Your task to perform on an android device: toggle notifications settings in the gmail app Image 0: 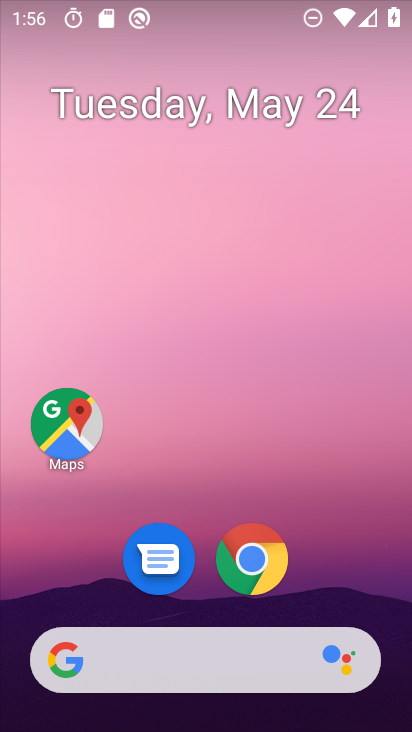
Step 0: drag from (389, 584) to (364, 225)
Your task to perform on an android device: toggle notifications settings in the gmail app Image 1: 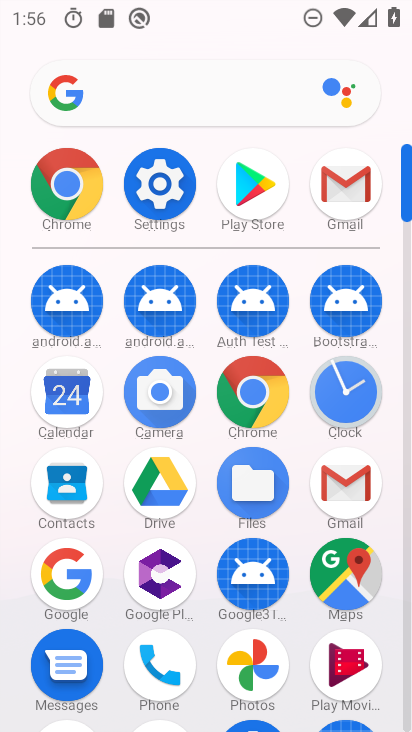
Step 1: click (341, 189)
Your task to perform on an android device: toggle notifications settings in the gmail app Image 2: 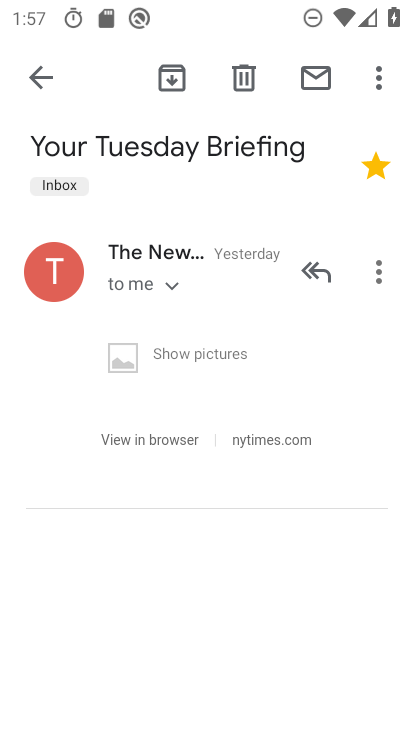
Step 2: click (37, 77)
Your task to perform on an android device: toggle notifications settings in the gmail app Image 3: 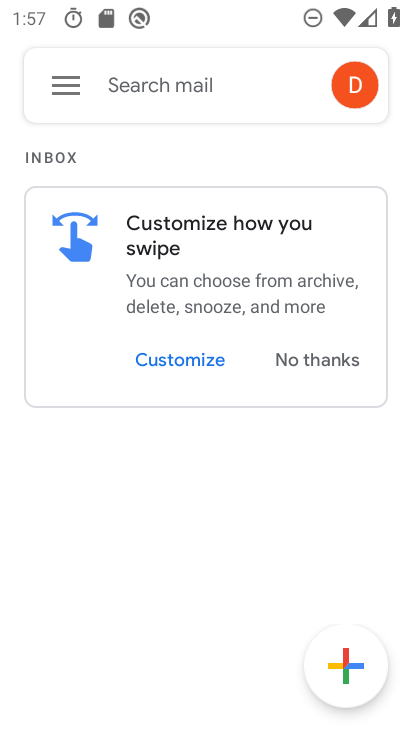
Step 3: click (41, 81)
Your task to perform on an android device: toggle notifications settings in the gmail app Image 4: 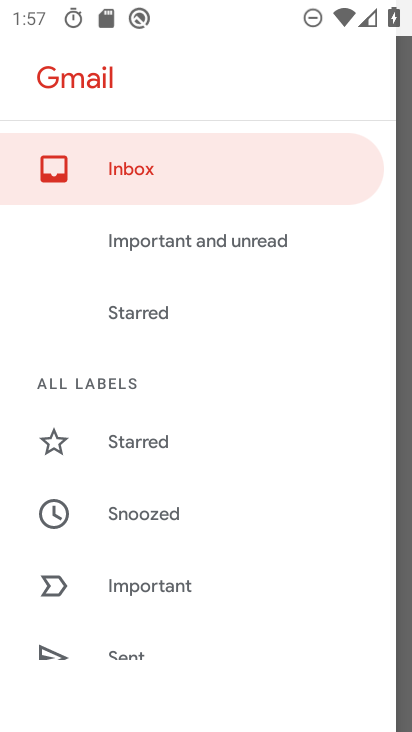
Step 4: click (139, 169)
Your task to perform on an android device: toggle notifications settings in the gmail app Image 5: 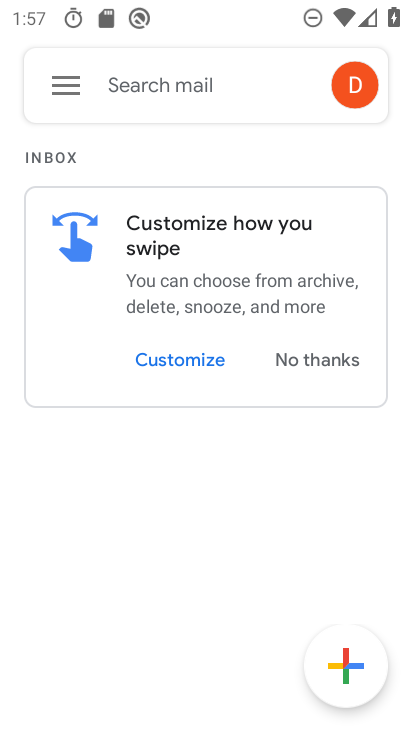
Step 5: click (66, 86)
Your task to perform on an android device: toggle notifications settings in the gmail app Image 6: 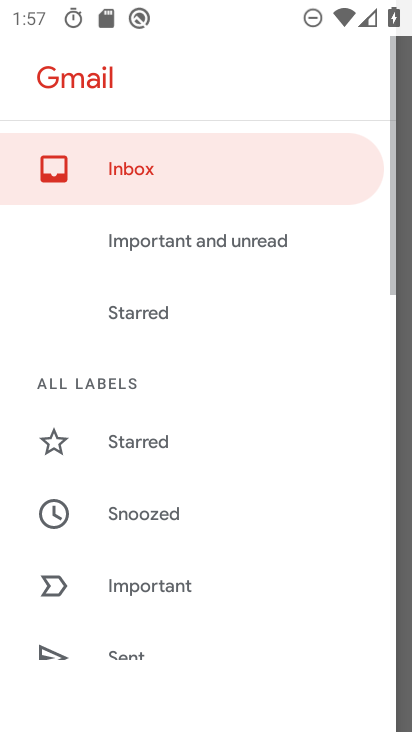
Step 6: drag from (271, 661) to (327, 213)
Your task to perform on an android device: toggle notifications settings in the gmail app Image 7: 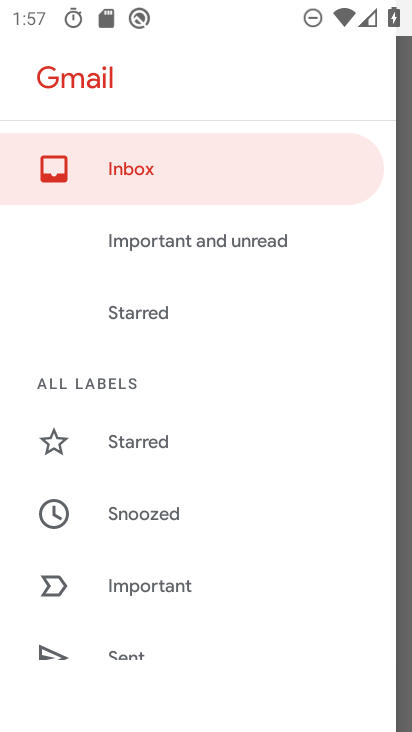
Step 7: drag from (246, 613) to (244, 381)
Your task to perform on an android device: toggle notifications settings in the gmail app Image 8: 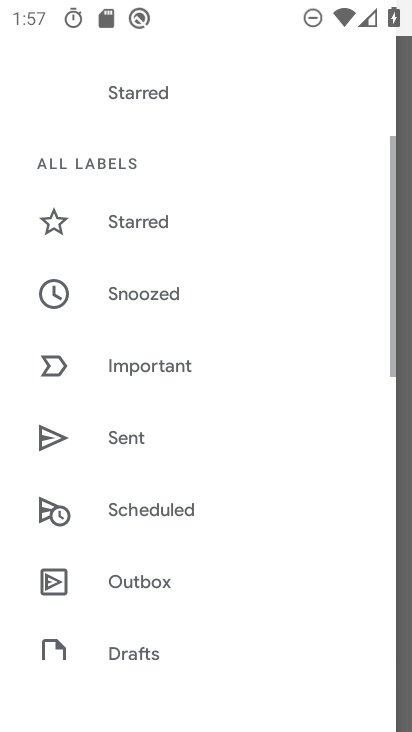
Step 8: drag from (235, 629) to (240, 303)
Your task to perform on an android device: toggle notifications settings in the gmail app Image 9: 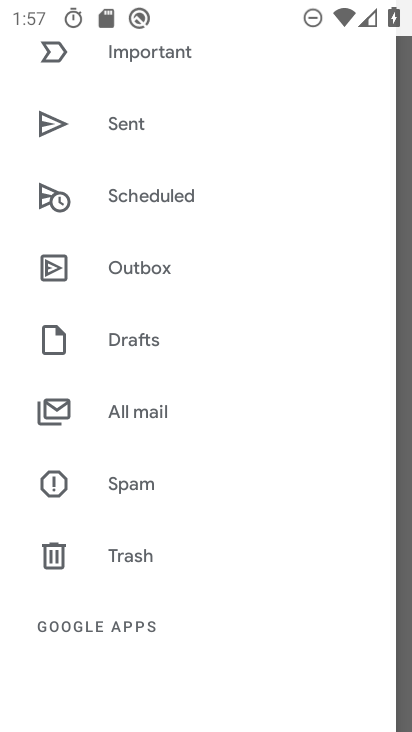
Step 9: drag from (236, 611) to (242, 271)
Your task to perform on an android device: toggle notifications settings in the gmail app Image 10: 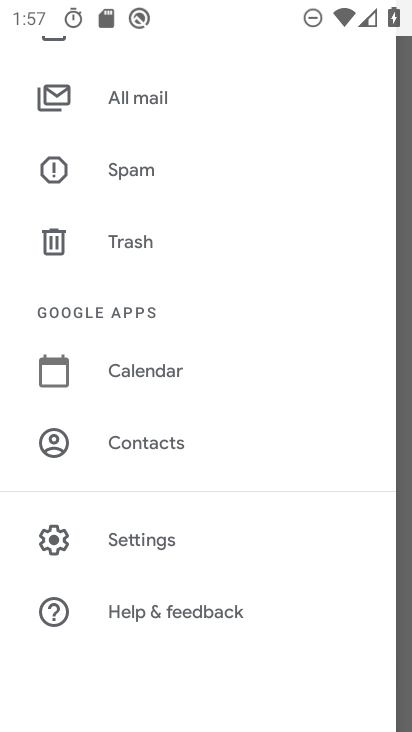
Step 10: click (160, 544)
Your task to perform on an android device: toggle notifications settings in the gmail app Image 11: 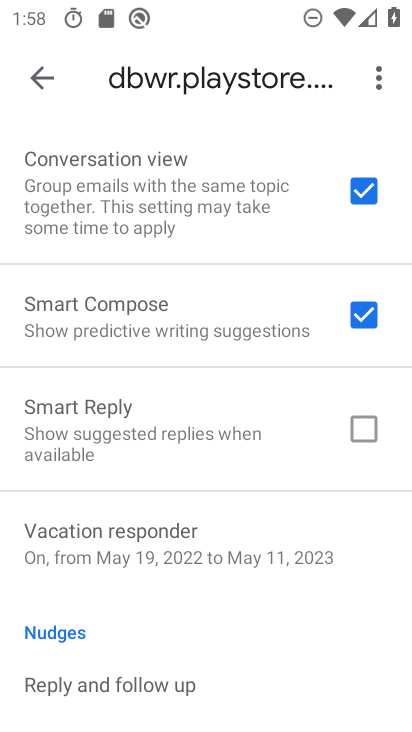
Step 11: click (28, 79)
Your task to perform on an android device: toggle notifications settings in the gmail app Image 12: 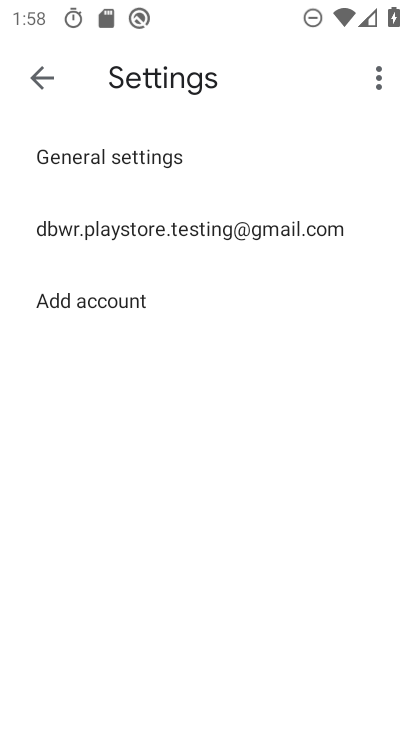
Step 12: click (58, 150)
Your task to perform on an android device: toggle notifications settings in the gmail app Image 13: 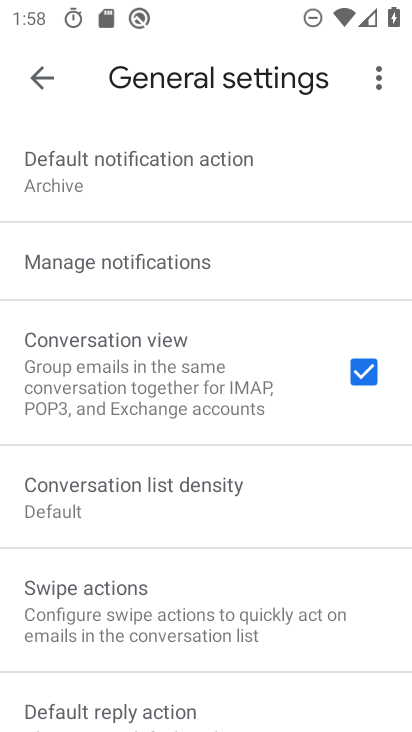
Step 13: click (149, 262)
Your task to perform on an android device: toggle notifications settings in the gmail app Image 14: 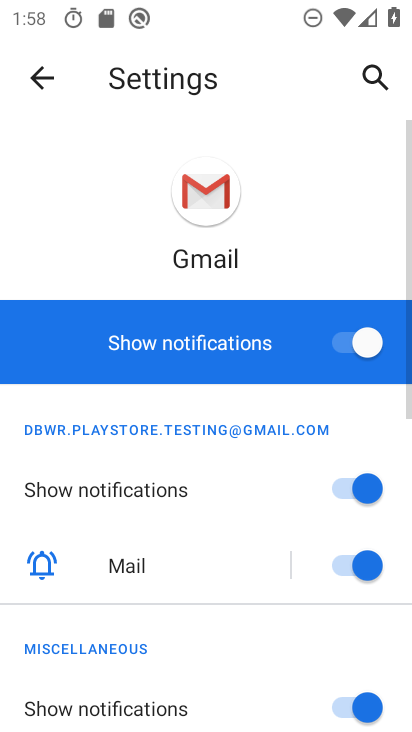
Step 14: click (331, 345)
Your task to perform on an android device: toggle notifications settings in the gmail app Image 15: 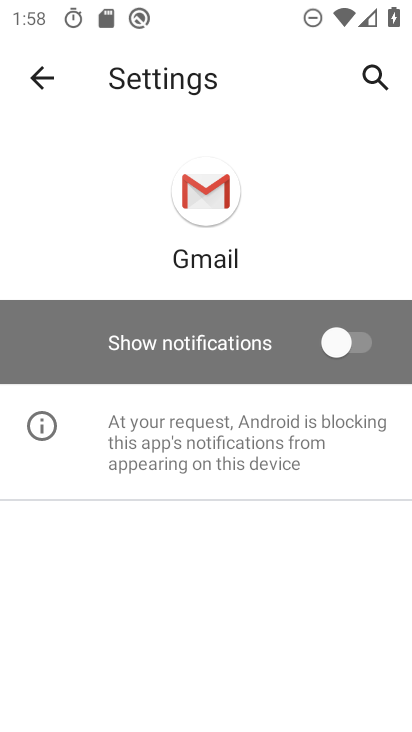
Step 15: task complete